Your task to perform on an android device: turn off improve location accuracy Image 0: 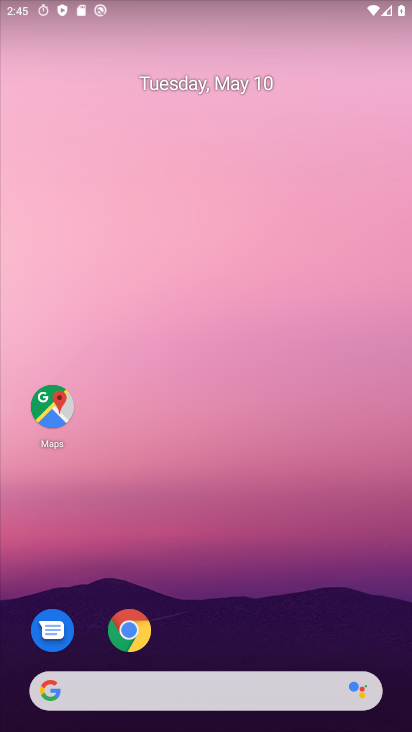
Step 0: drag from (209, 640) to (385, 5)
Your task to perform on an android device: turn off improve location accuracy Image 1: 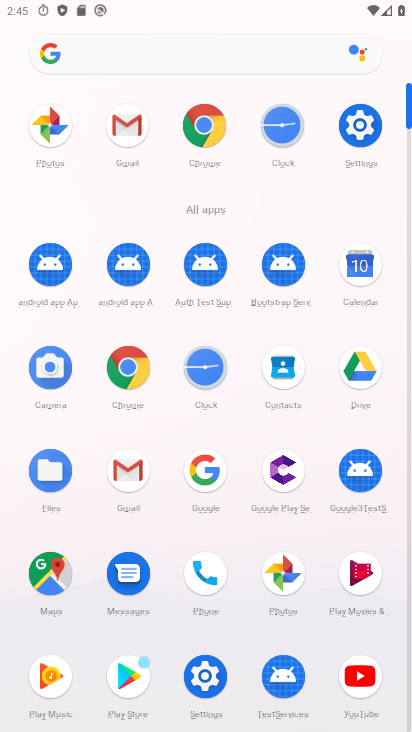
Step 1: click (357, 120)
Your task to perform on an android device: turn off improve location accuracy Image 2: 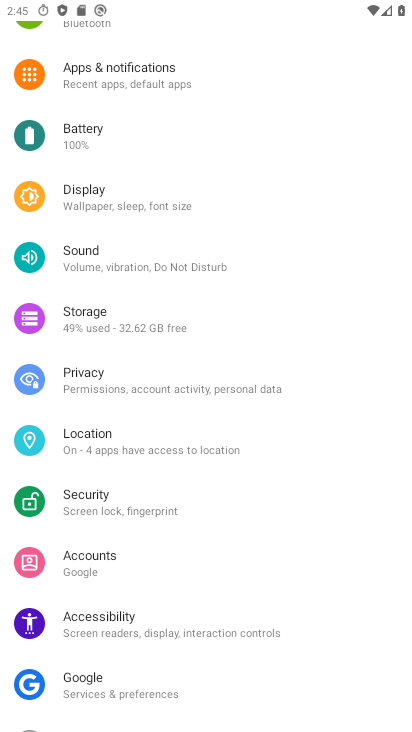
Step 2: drag from (194, 558) to (235, 98)
Your task to perform on an android device: turn off improve location accuracy Image 3: 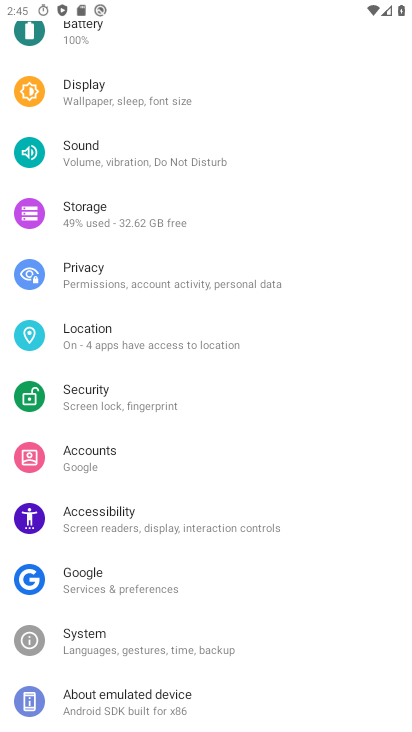
Step 3: click (136, 320)
Your task to perform on an android device: turn off improve location accuracy Image 4: 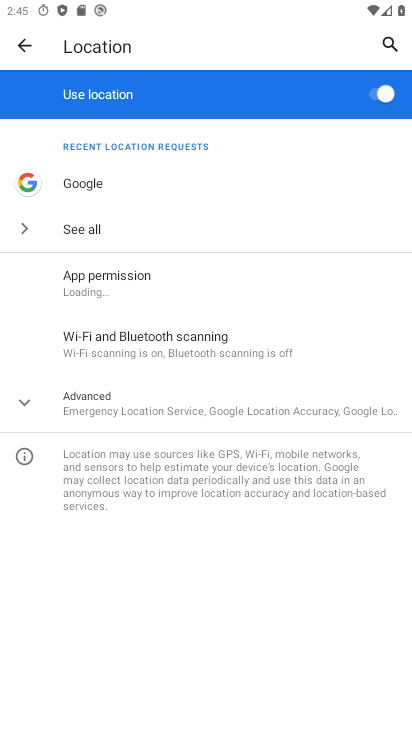
Step 4: click (136, 405)
Your task to perform on an android device: turn off improve location accuracy Image 5: 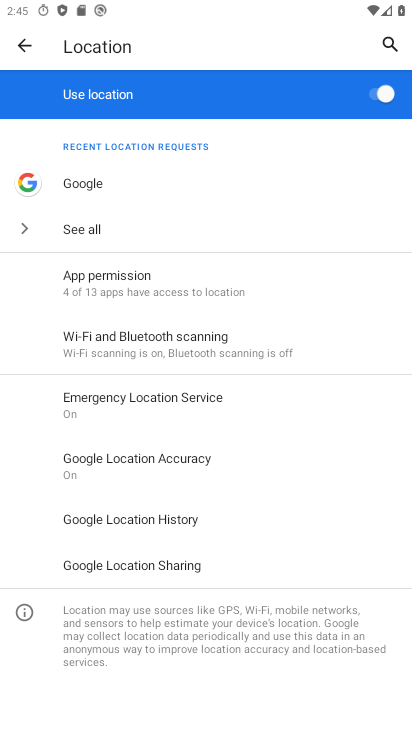
Step 5: click (186, 456)
Your task to perform on an android device: turn off improve location accuracy Image 6: 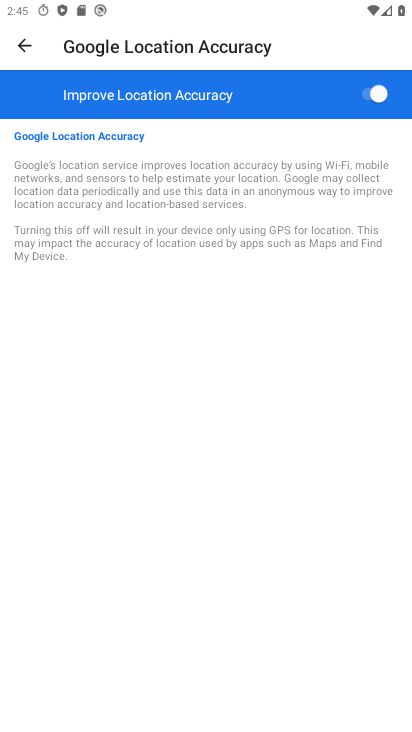
Step 6: click (379, 91)
Your task to perform on an android device: turn off improve location accuracy Image 7: 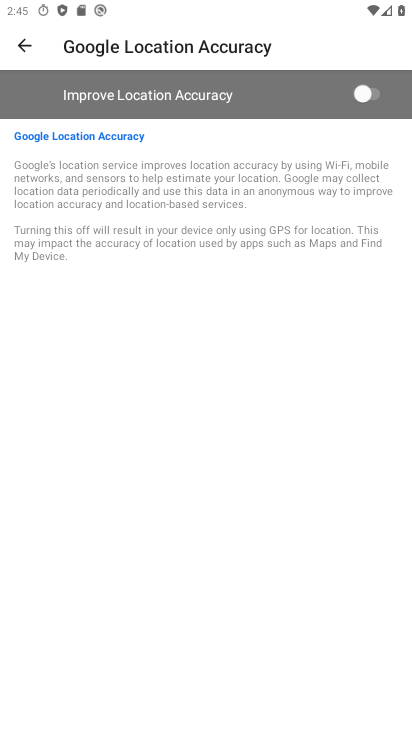
Step 7: task complete